Your task to perform on an android device: Turn off the flashlight Image 0: 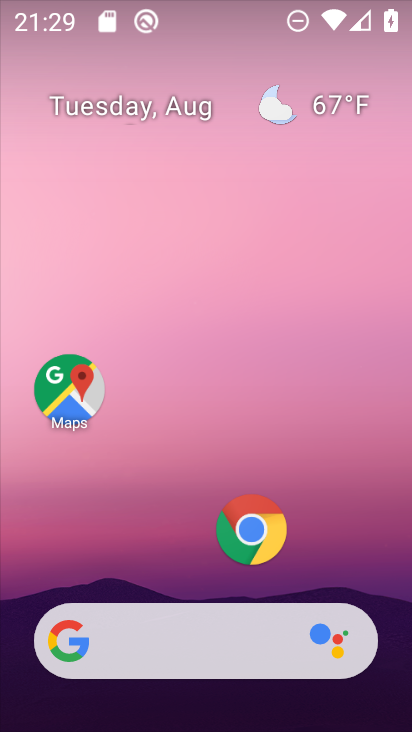
Step 0: drag from (208, 445) to (190, 16)
Your task to perform on an android device: Turn off the flashlight Image 1: 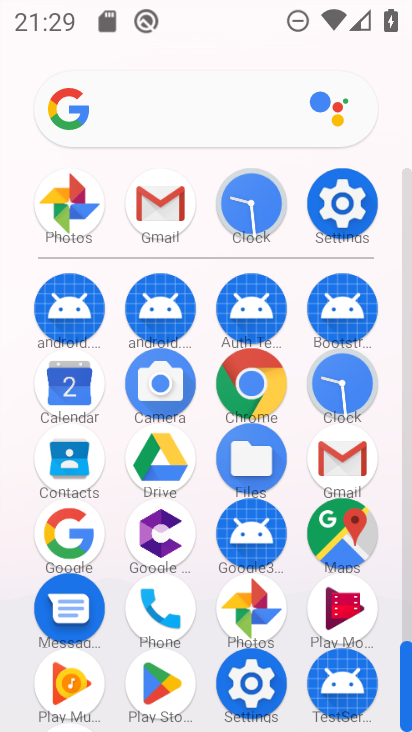
Step 1: click (345, 213)
Your task to perform on an android device: Turn off the flashlight Image 2: 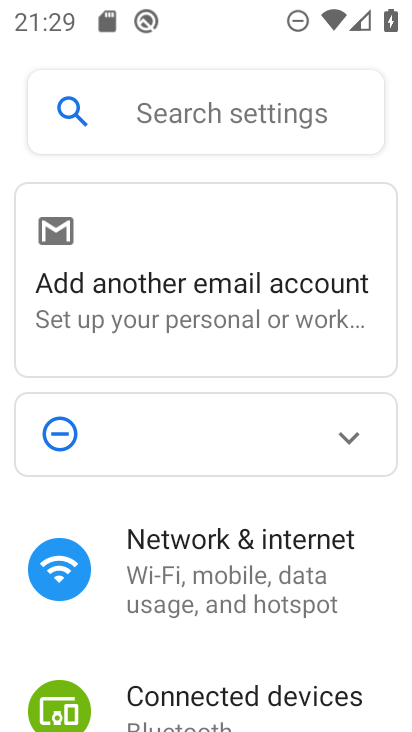
Step 2: click (184, 143)
Your task to perform on an android device: Turn off the flashlight Image 3: 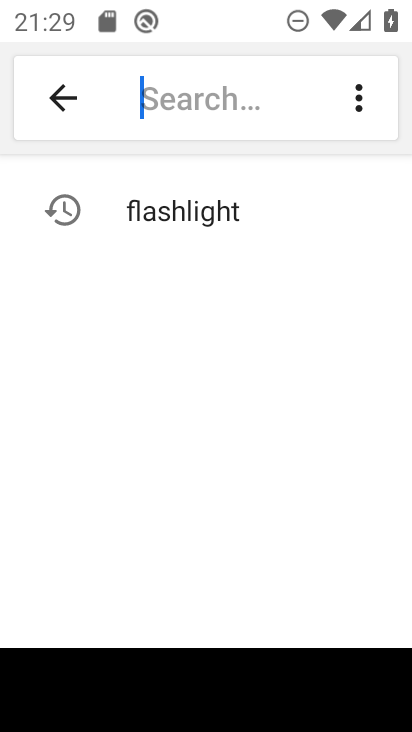
Step 3: click (168, 207)
Your task to perform on an android device: Turn off the flashlight Image 4: 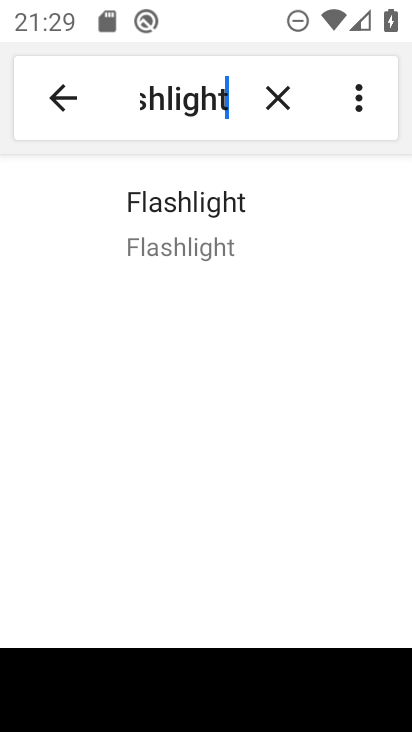
Step 4: click (190, 226)
Your task to perform on an android device: Turn off the flashlight Image 5: 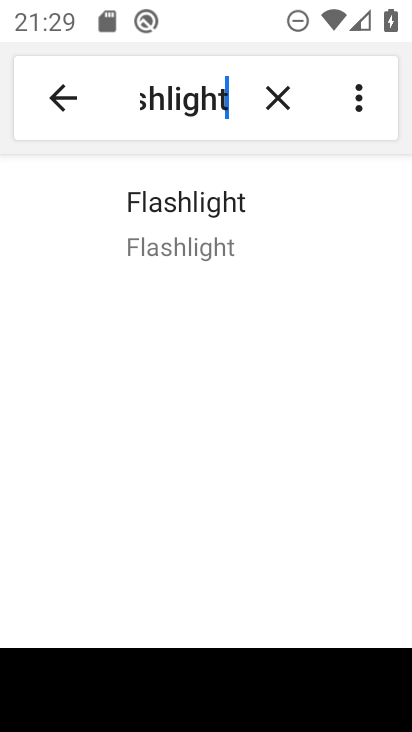
Step 5: task complete